Your task to perform on an android device: Find coffee shops on Maps Image 0: 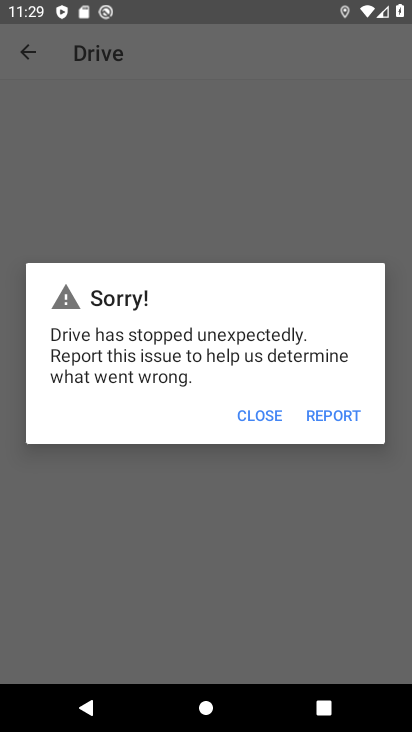
Step 0: press home button
Your task to perform on an android device: Find coffee shops on Maps Image 1: 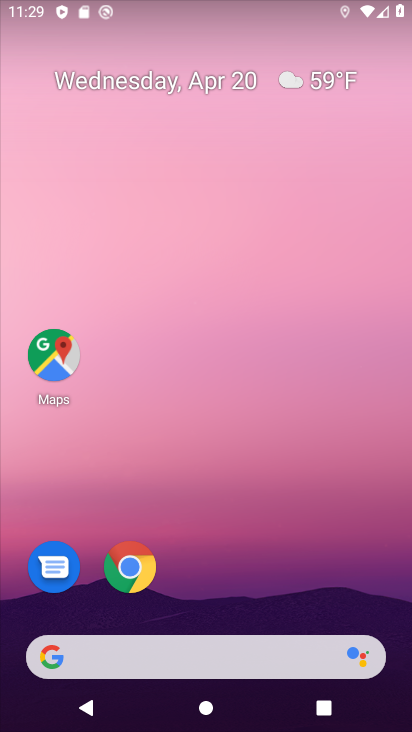
Step 1: click (57, 378)
Your task to perform on an android device: Find coffee shops on Maps Image 2: 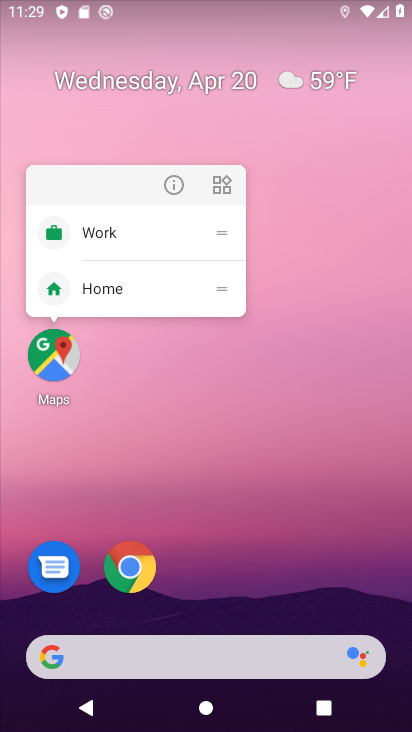
Step 2: click (56, 380)
Your task to perform on an android device: Find coffee shops on Maps Image 3: 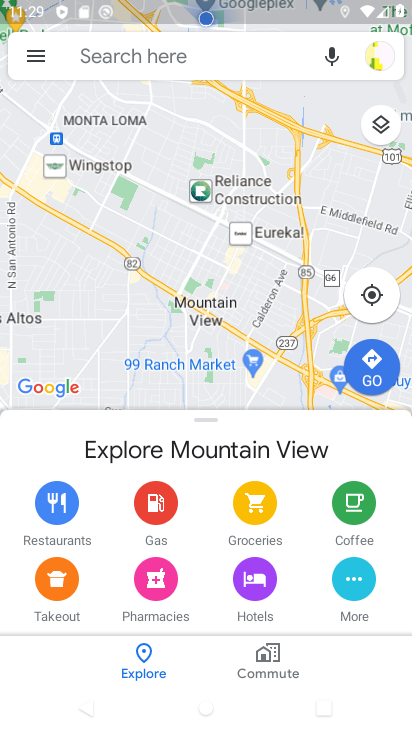
Step 3: click (205, 67)
Your task to perform on an android device: Find coffee shops on Maps Image 4: 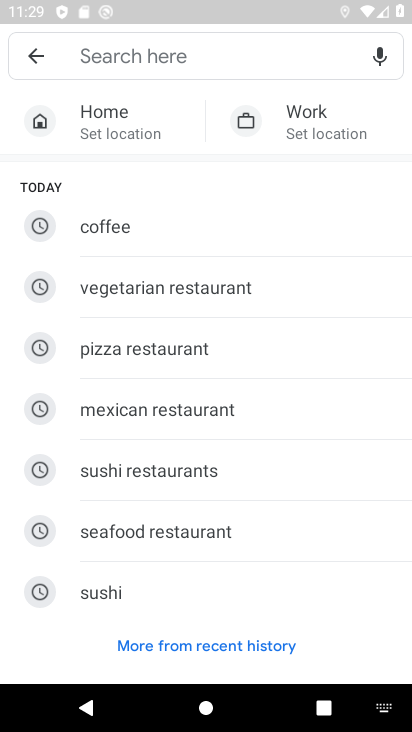
Step 4: type "coffee shops"
Your task to perform on an android device: Find coffee shops on Maps Image 5: 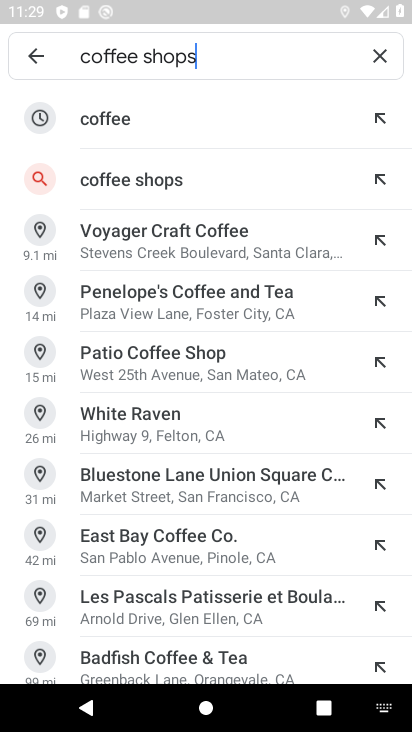
Step 5: click (226, 196)
Your task to perform on an android device: Find coffee shops on Maps Image 6: 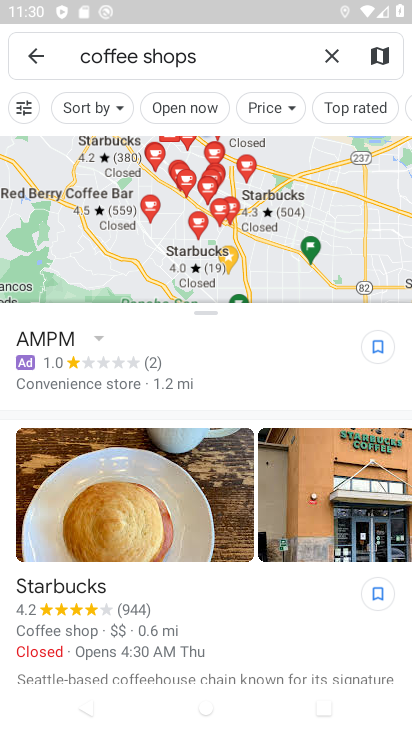
Step 6: task complete